Your task to perform on an android device: Open notification settings Image 0: 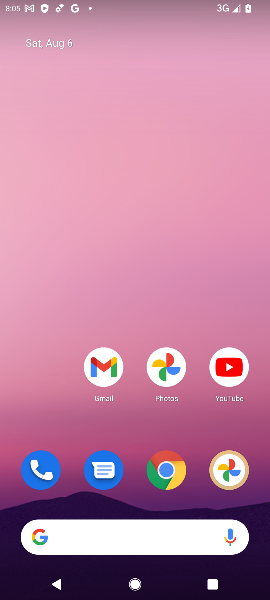
Step 0: drag from (144, 360) to (160, 64)
Your task to perform on an android device: Open notification settings Image 1: 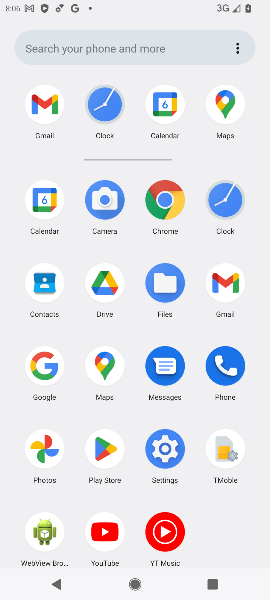
Step 1: click (162, 450)
Your task to perform on an android device: Open notification settings Image 2: 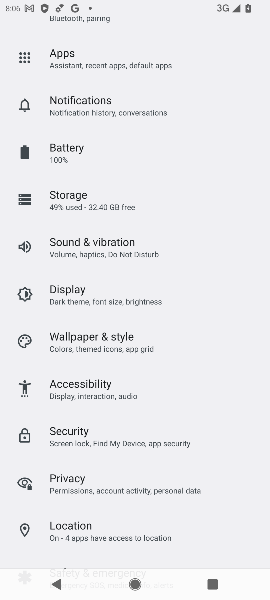
Step 2: click (131, 107)
Your task to perform on an android device: Open notification settings Image 3: 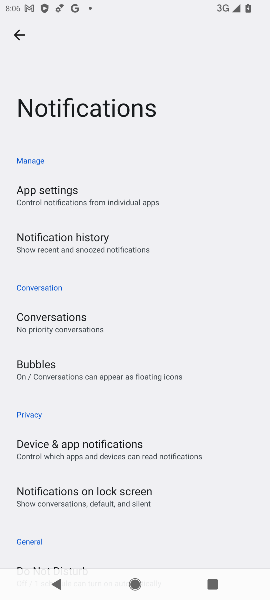
Step 3: task complete